Your task to perform on an android device: turn on translation in the chrome app Image 0: 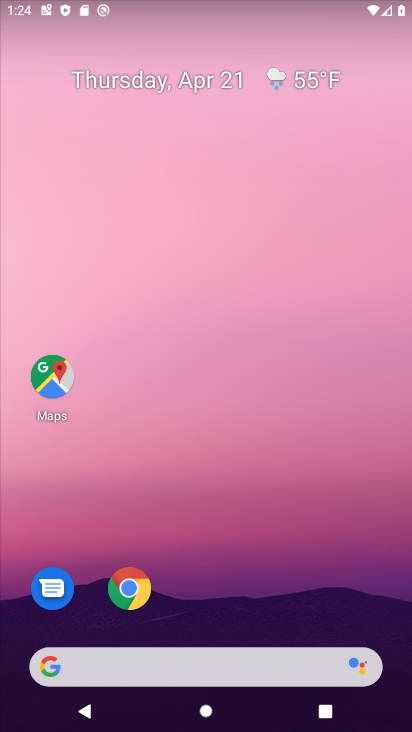
Step 0: click (137, 590)
Your task to perform on an android device: turn on translation in the chrome app Image 1: 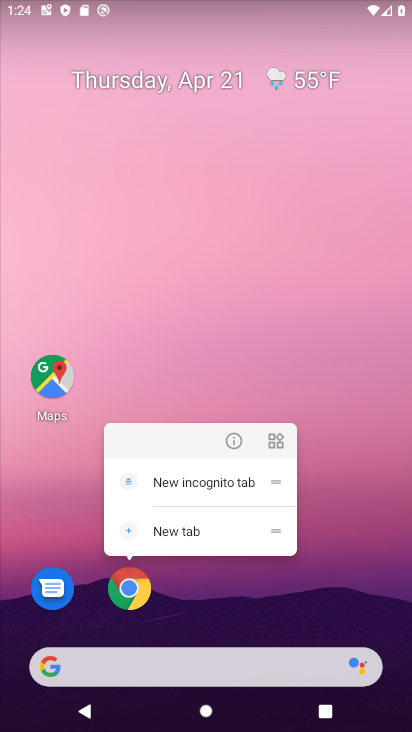
Step 1: click (131, 591)
Your task to perform on an android device: turn on translation in the chrome app Image 2: 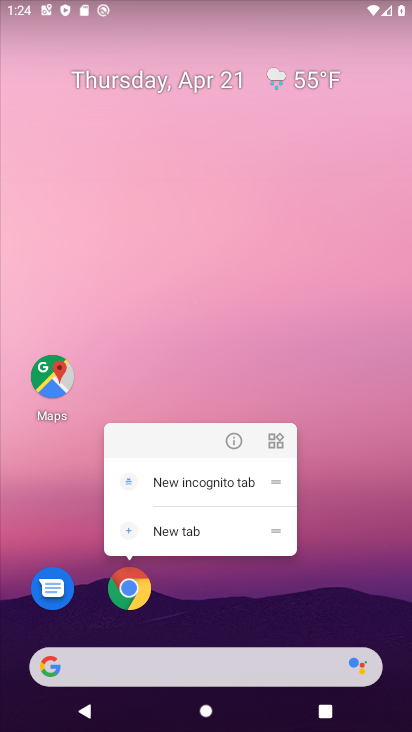
Step 2: click (124, 598)
Your task to perform on an android device: turn on translation in the chrome app Image 3: 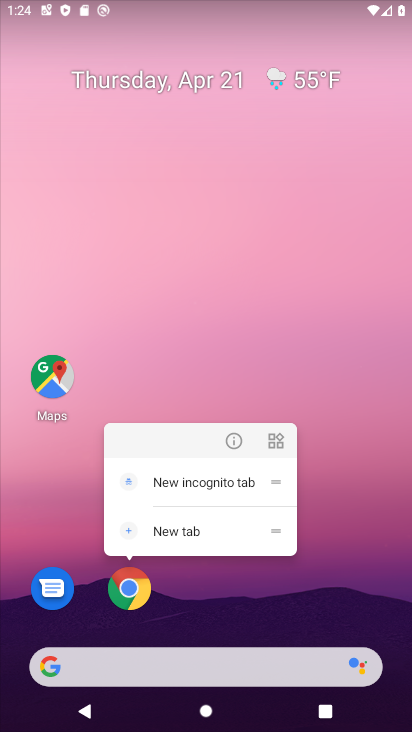
Step 3: click (142, 597)
Your task to perform on an android device: turn on translation in the chrome app Image 4: 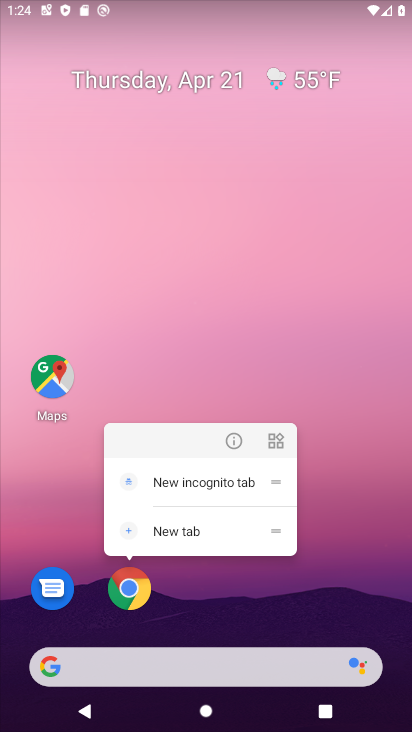
Step 4: click (128, 590)
Your task to perform on an android device: turn on translation in the chrome app Image 5: 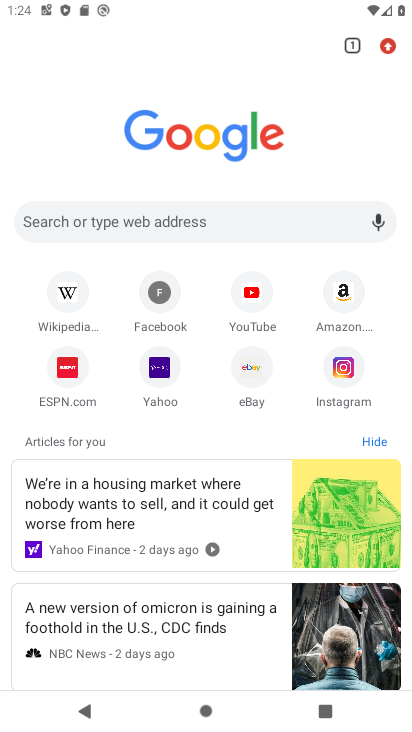
Step 5: drag from (387, 52) to (294, 420)
Your task to perform on an android device: turn on translation in the chrome app Image 6: 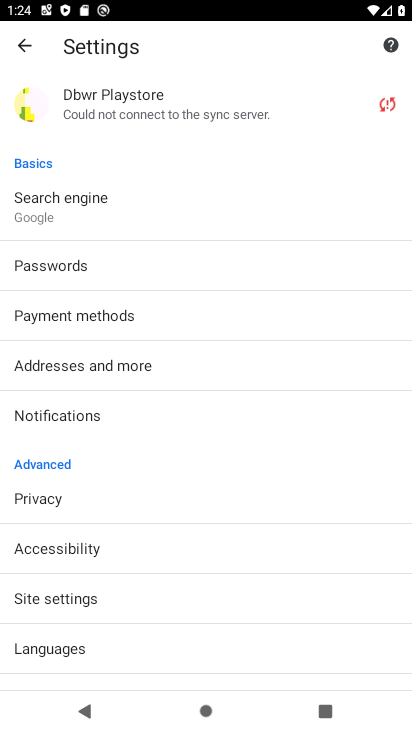
Step 6: click (116, 664)
Your task to perform on an android device: turn on translation in the chrome app Image 7: 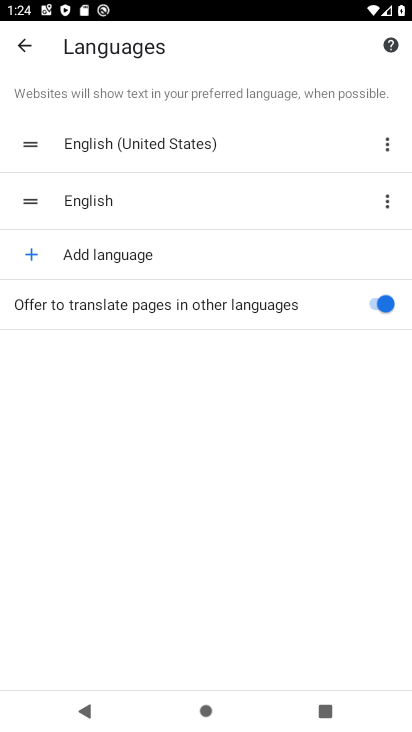
Step 7: task complete